Your task to perform on an android device: toggle location history Image 0: 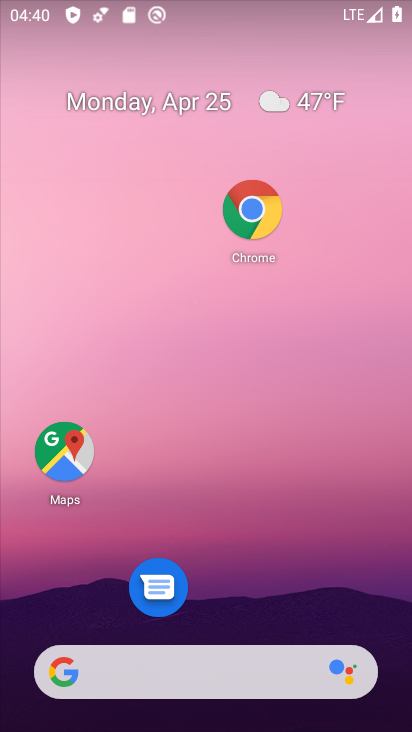
Step 0: drag from (369, 576) to (313, 193)
Your task to perform on an android device: toggle location history Image 1: 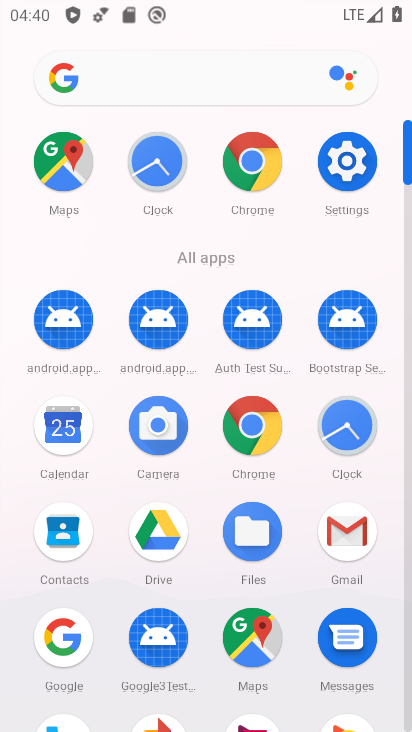
Step 1: click (80, 180)
Your task to perform on an android device: toggle location history Image 2: 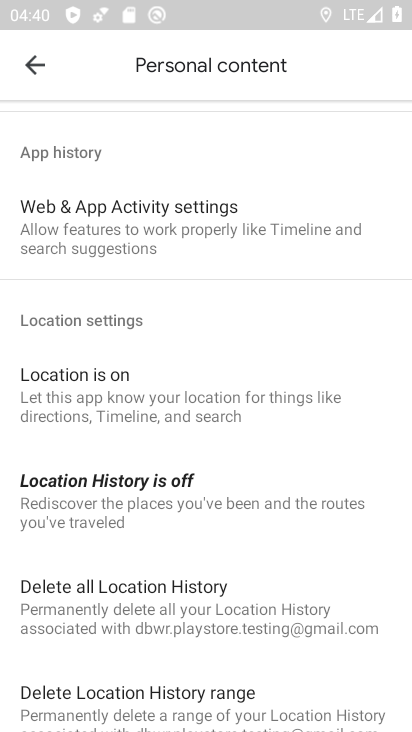
Step 2: click (235, 501)
Your task to perform on an android device: toggle location history Image 3: 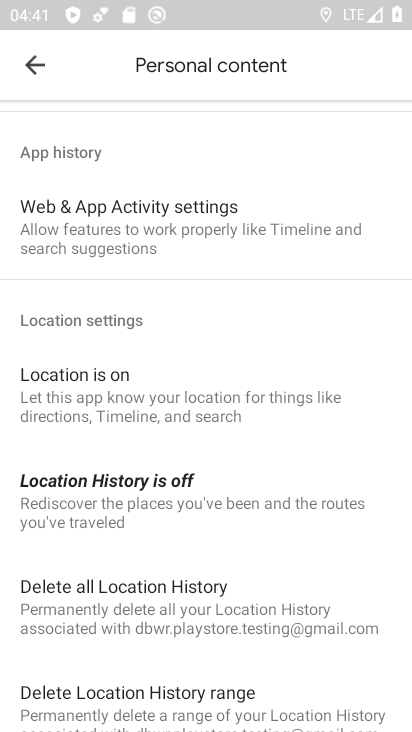
Step 3: click (235, 501)
Your task to perform on an android device: toggle location history Image 4: 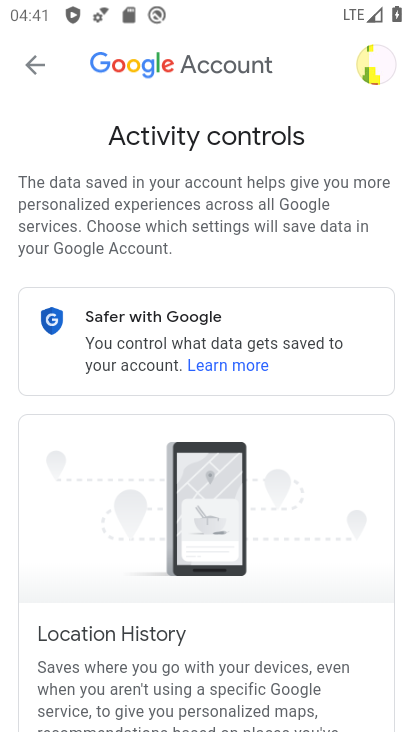
Step 4: drag from (337, 632) to (296, 84)
Your task to perform on an android device: toggle location history Image 5: 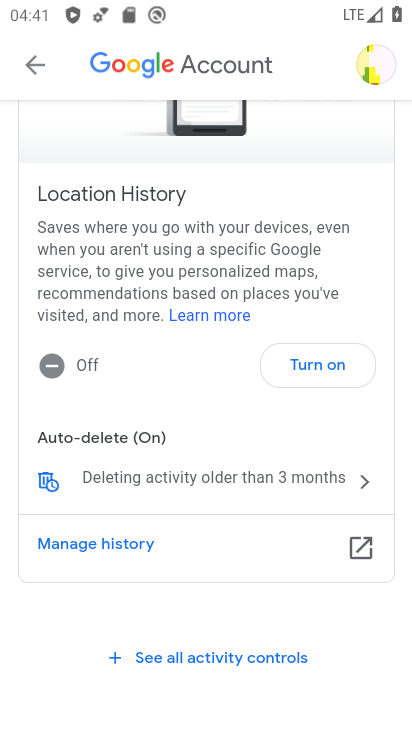
Step 5: click (306, 363)
Your task to perform on an android device: toggle location history Image 6: 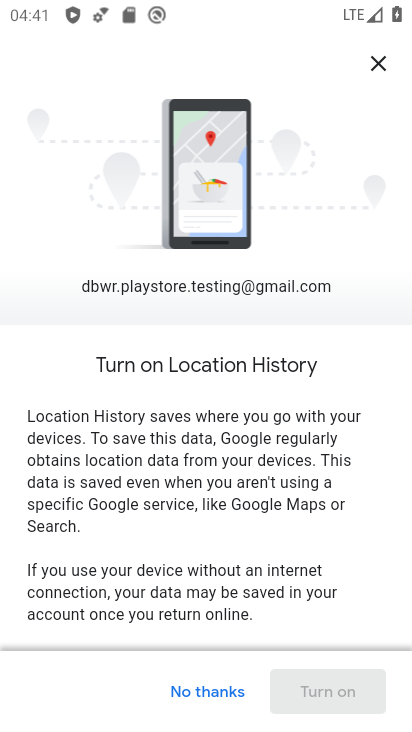
Step 6: drag from (333, 588) to (310, 87)
Your task to perform on an android device: toggle location history Image 7: 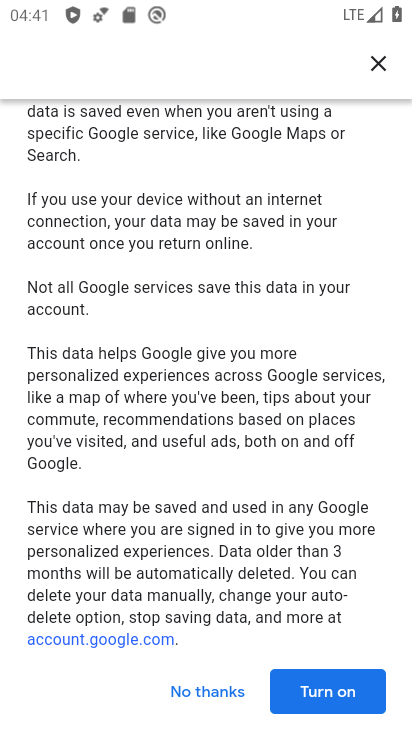
Step 7: click (350, 700)
Your task to perform on an android device: toggle location history Image 8: 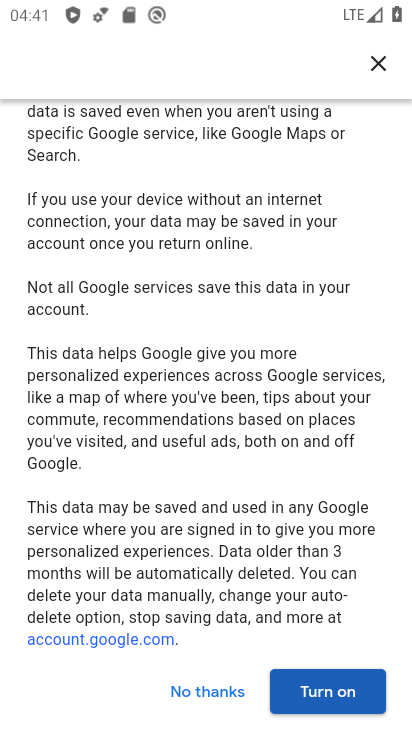
Step 8: click (350, 700)
Your task to perform on an android device: toggle location history Image 9: 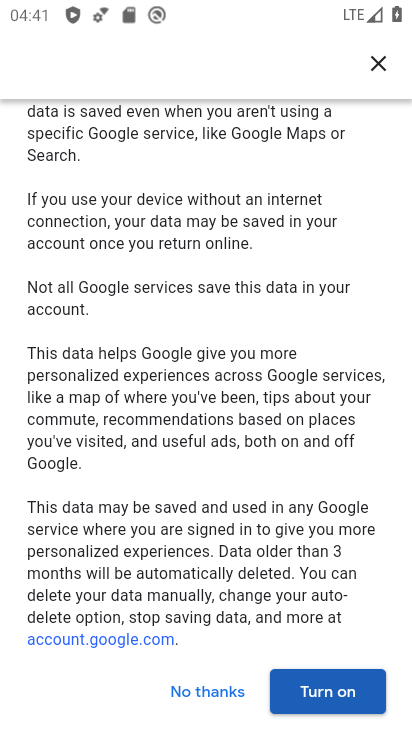
Step 9: click (350, 700)
Your task to perform on an android device: toggle location history Image 10: 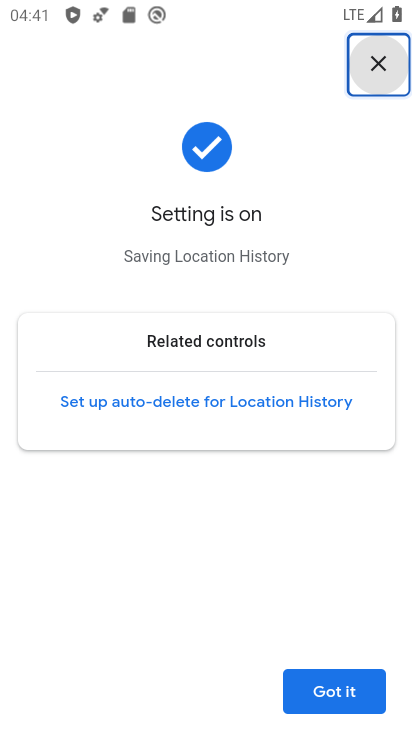
Step 10: click (350, 700)
Your task to perform on an android device: toggle location history Image 11: 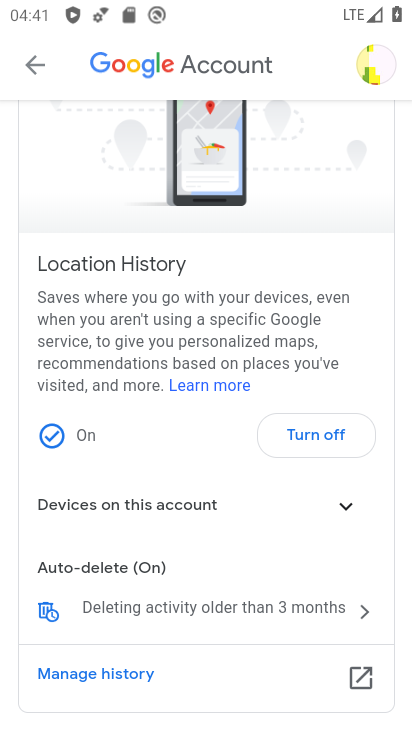
Step 11: task complete